Your task to perform on an android device: change your default location settings in chrome Image 0: 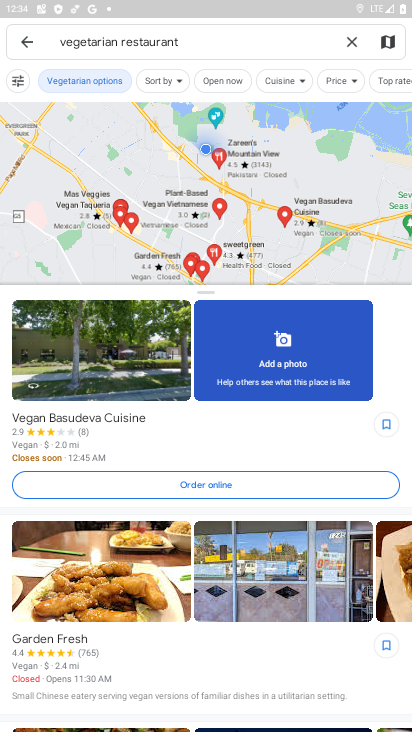
Step 0: press home button
Your task to perform on an android device: change your default location settings in chrome Image 1: 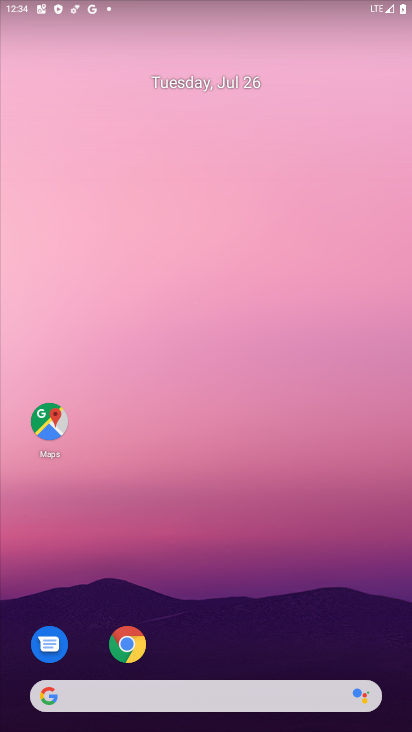
Step 1: click (120, 649)
Your task to perform on an android device: change your default location settings in chrome Image 2: 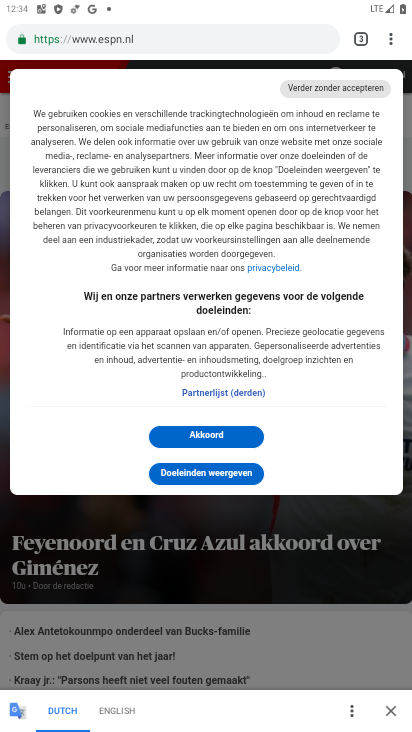
Step 2: drag from (390, 41) to (277, 465)
Your task to perform on an android device: change your default location settings in chrome Image 3: 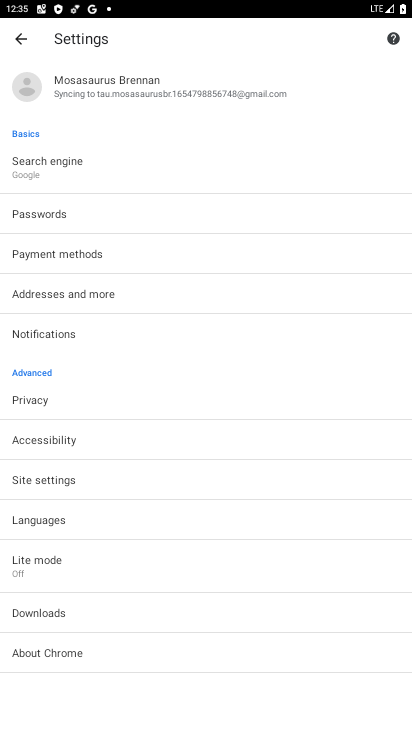
Step 3: click (76, 486)
Your task to perform on an android device: change your default location settings in chrome Image 4: 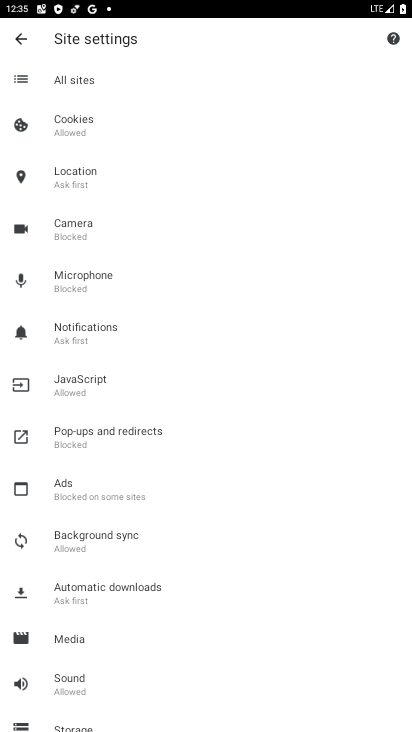
Step 4: click (70, 165)
Your task to perform on an android device: change your default location settings in chrome Image 5: 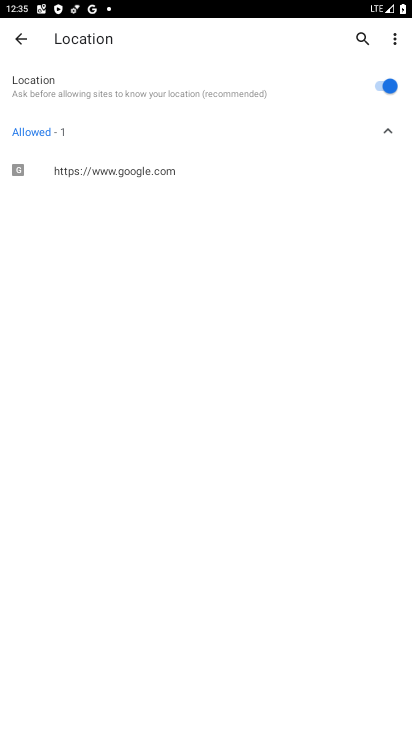
Step 5: click (390, 88)
Your task to perform on an android device: change your default location settings in chrome Image 6: 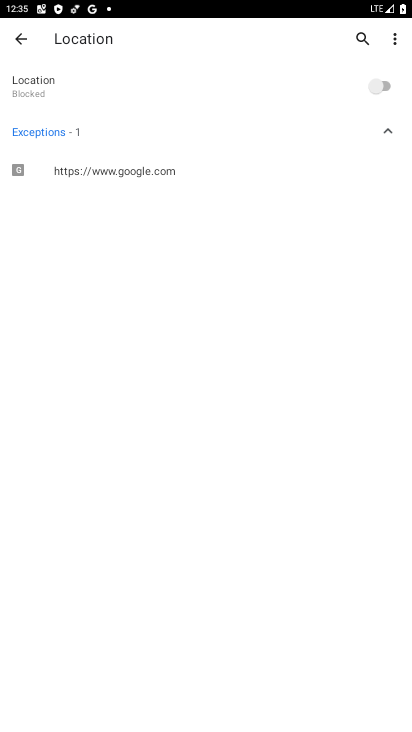
Step 6: task complete